Your task to perform on an android device: View the shopping cart on newegg.com. Image 0: 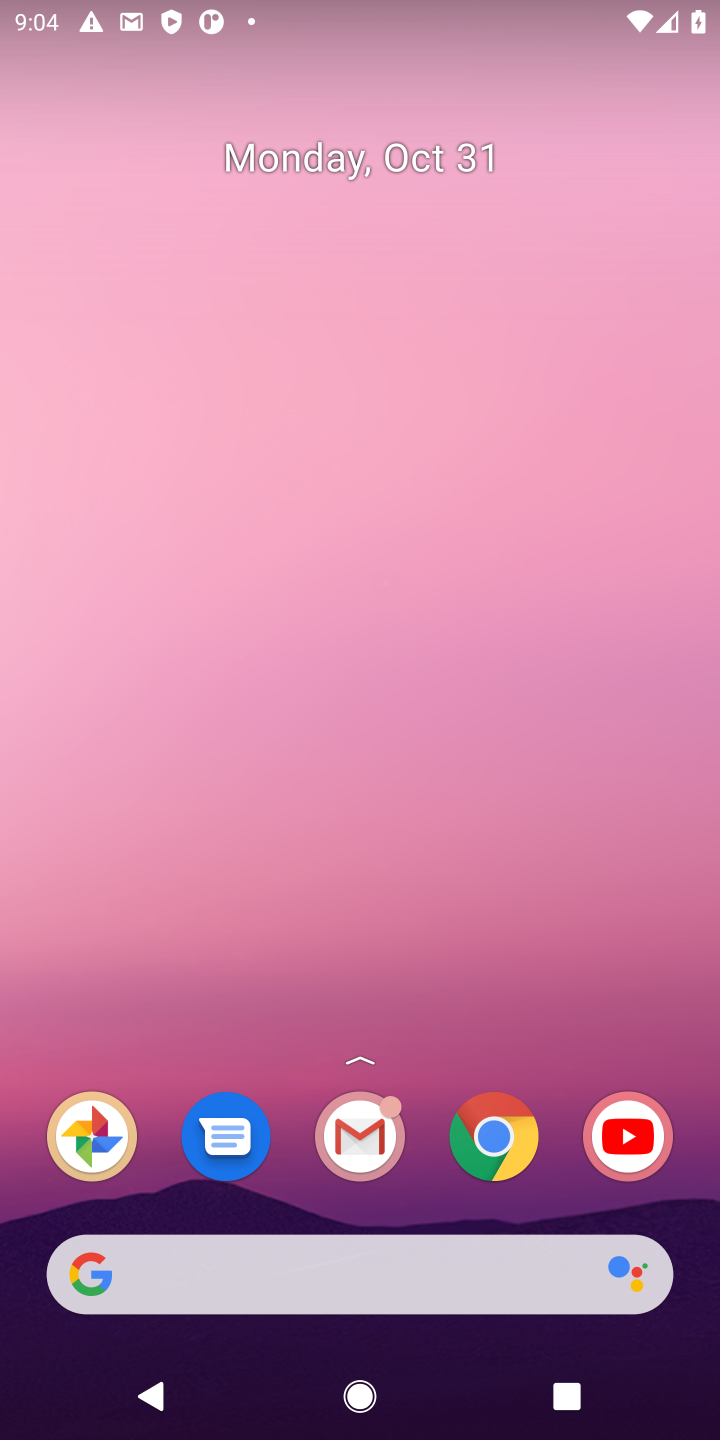
Step 0: click (508, 1137)
Your task to perform on an android device: View the shopping cart on newegg.com. Image 1: 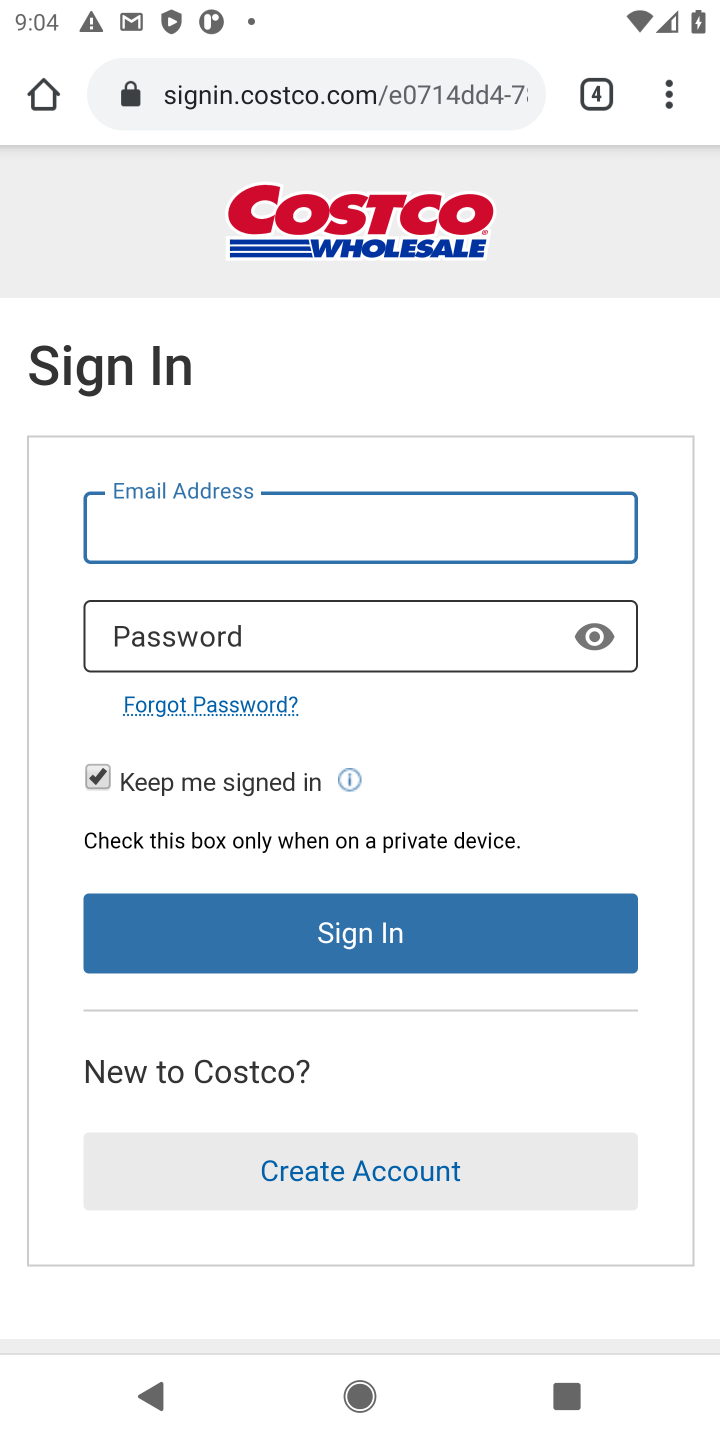
Step 1: click (369, 89)
Your task to perform on an android device: View the shopping cart on newegg.com. Image 2: 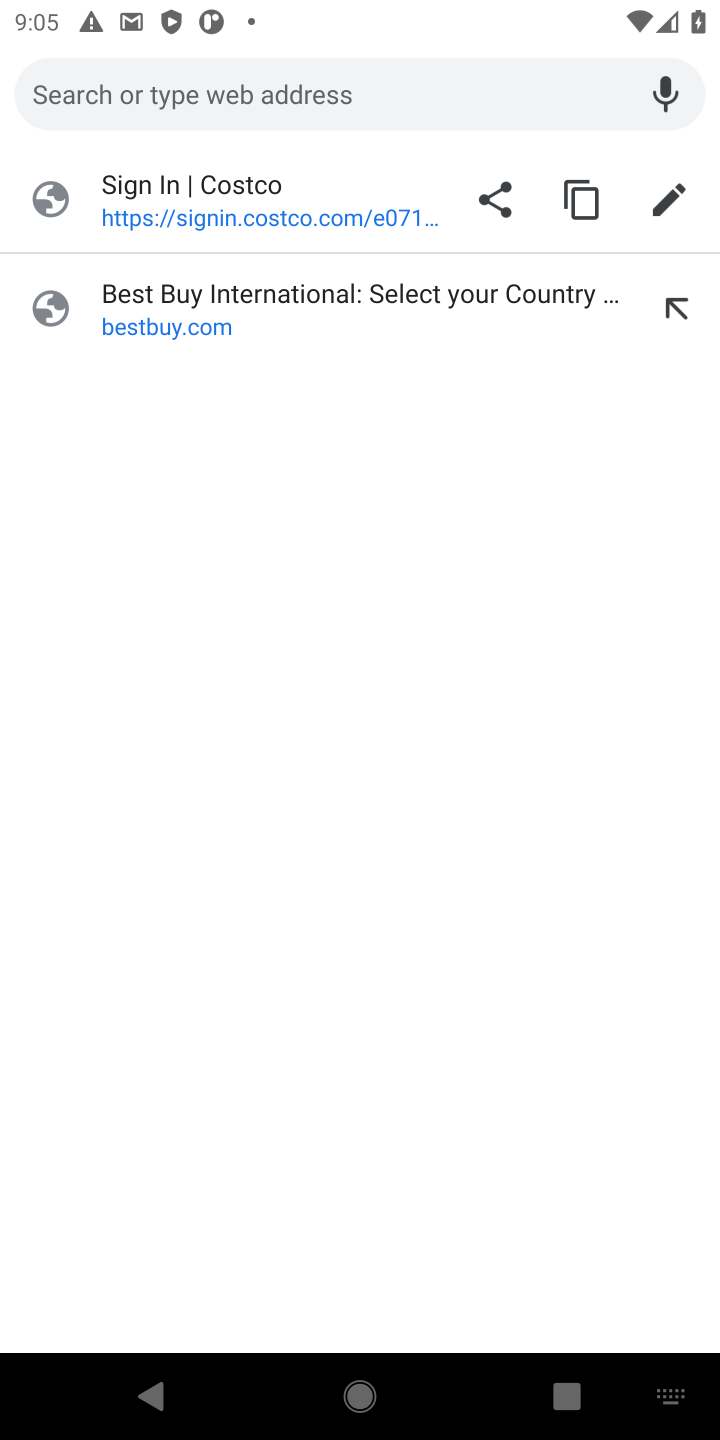
Step 2: type "newegg.com"
Your task to perform on an android device: View the shopping cart on newegg.com. Image 3: 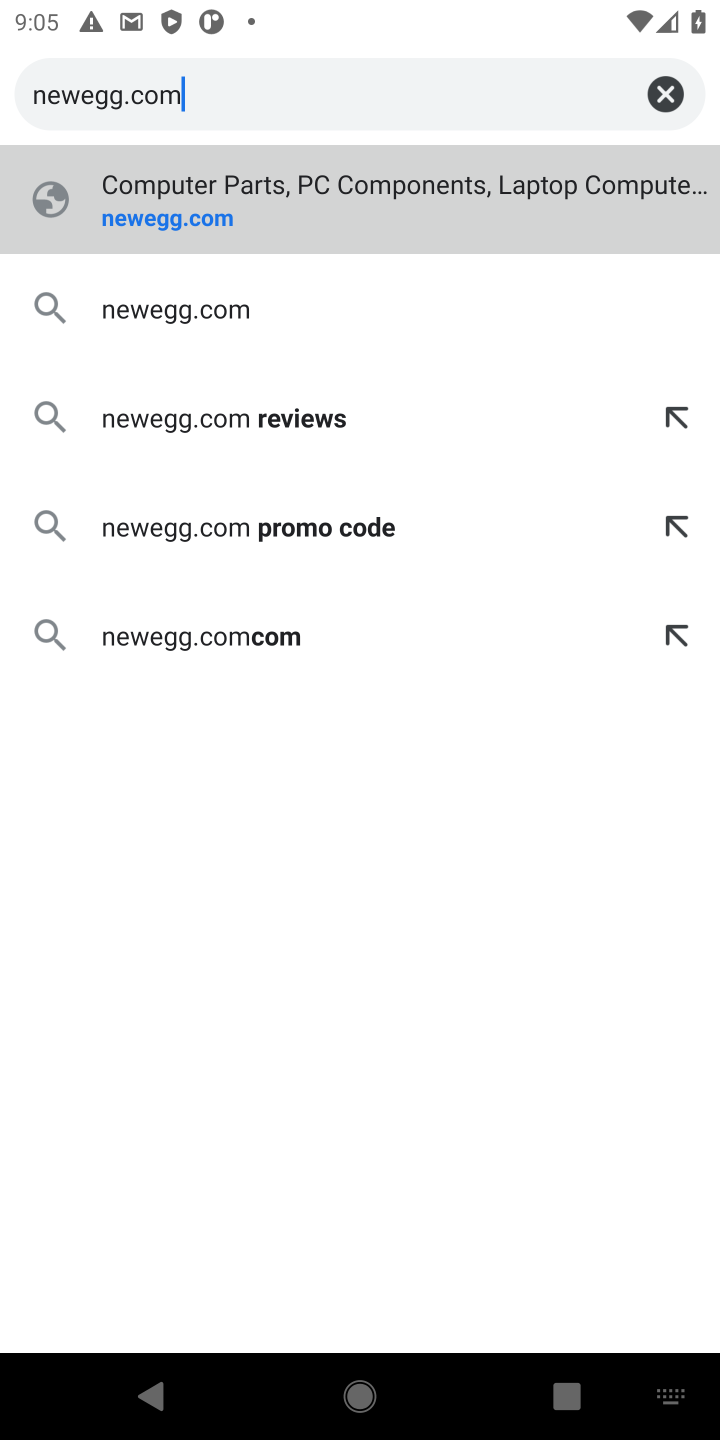
Step 3: click (233, 191)
Your task to perform on an android device: View the shopping cart on newegg.com. Image 4: 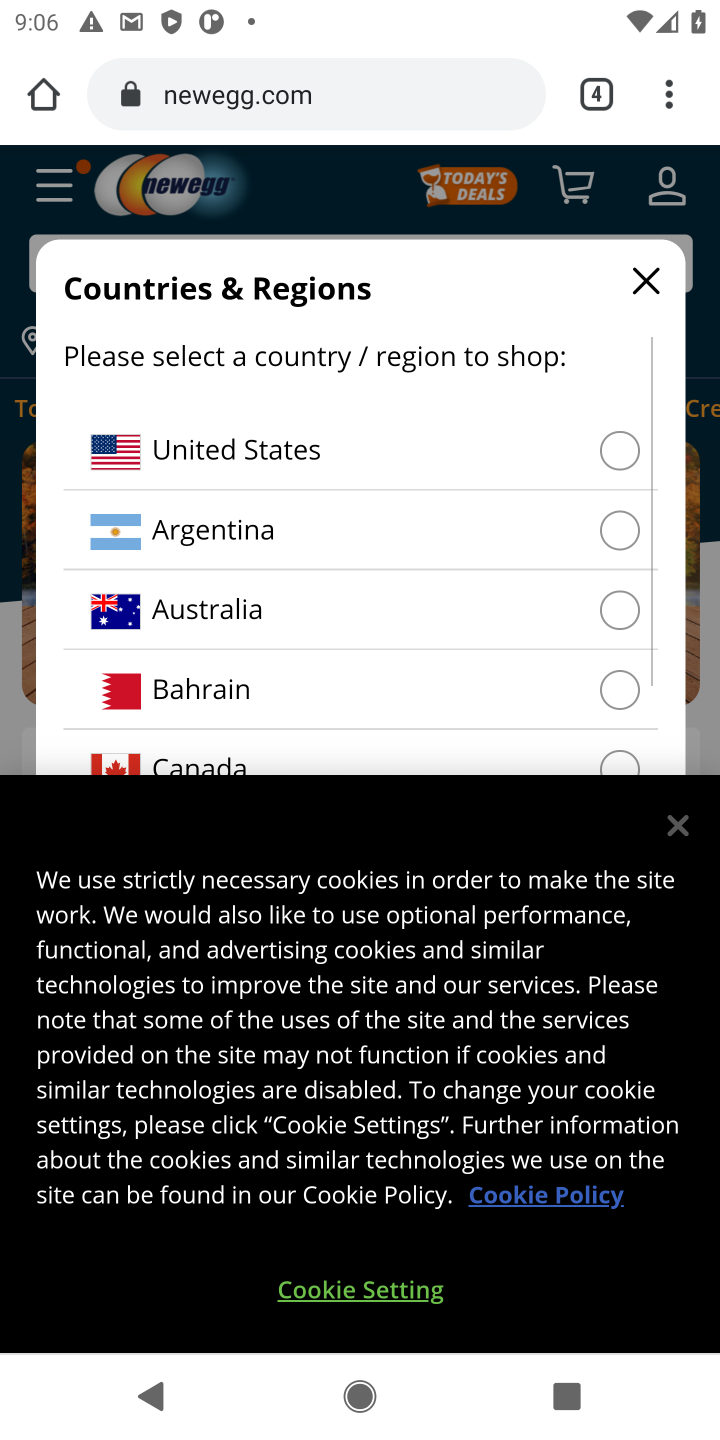
Step 4: click (634, 284)
Your task to perform on an android device: View the shopping cart on newegg.com. Image 5: 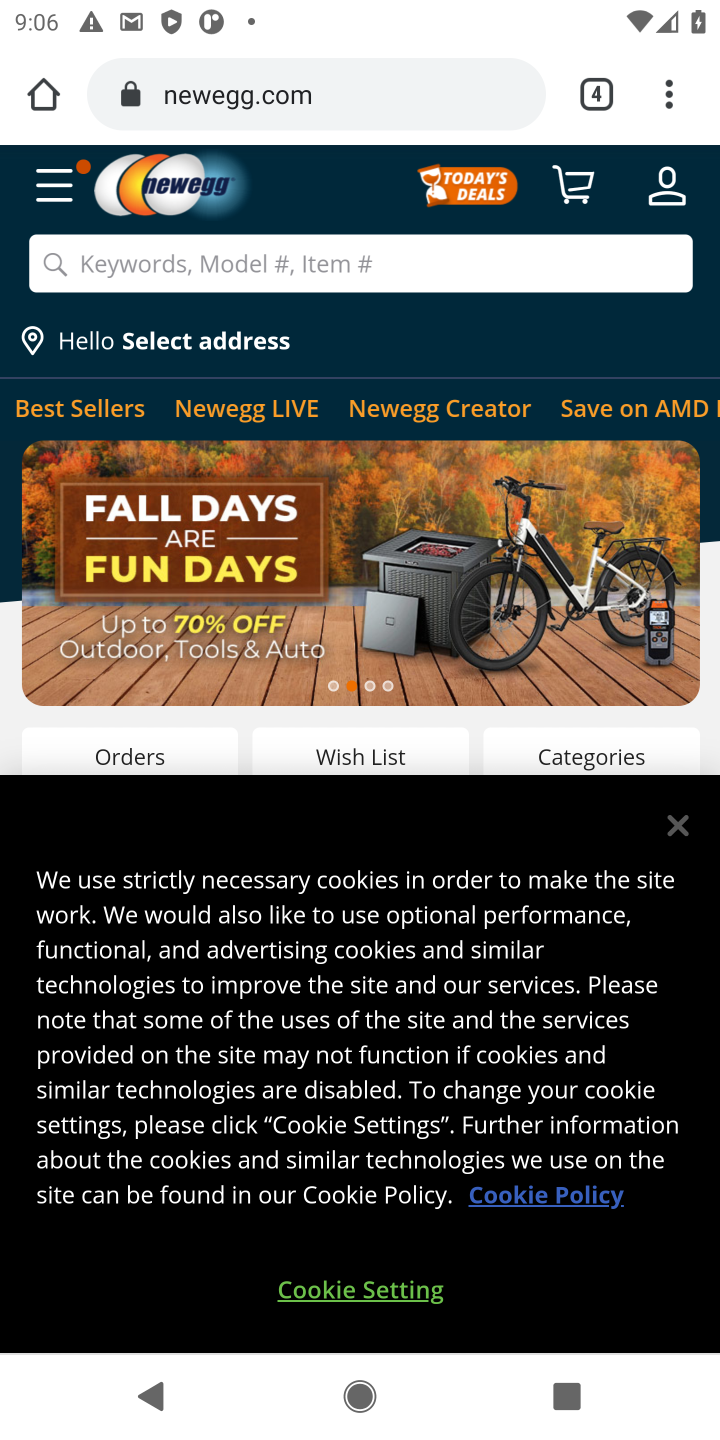
Step 5: click (678, 819)
Your task to perform on an android device: View the shopping cart on newegg.com. Image 6: 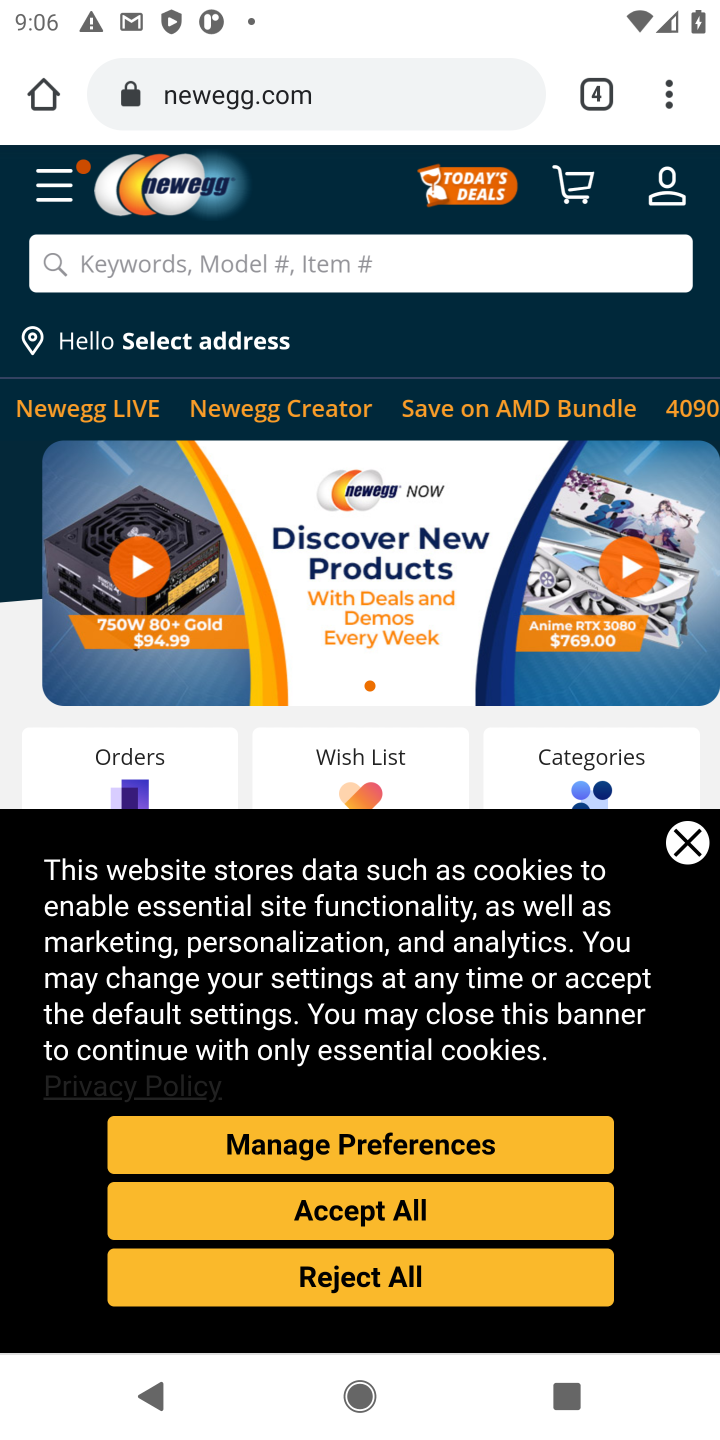
Step 6: click (665, 187)
Your task to perform on an android device: View the shopping cart on newegg.com. Image 7: 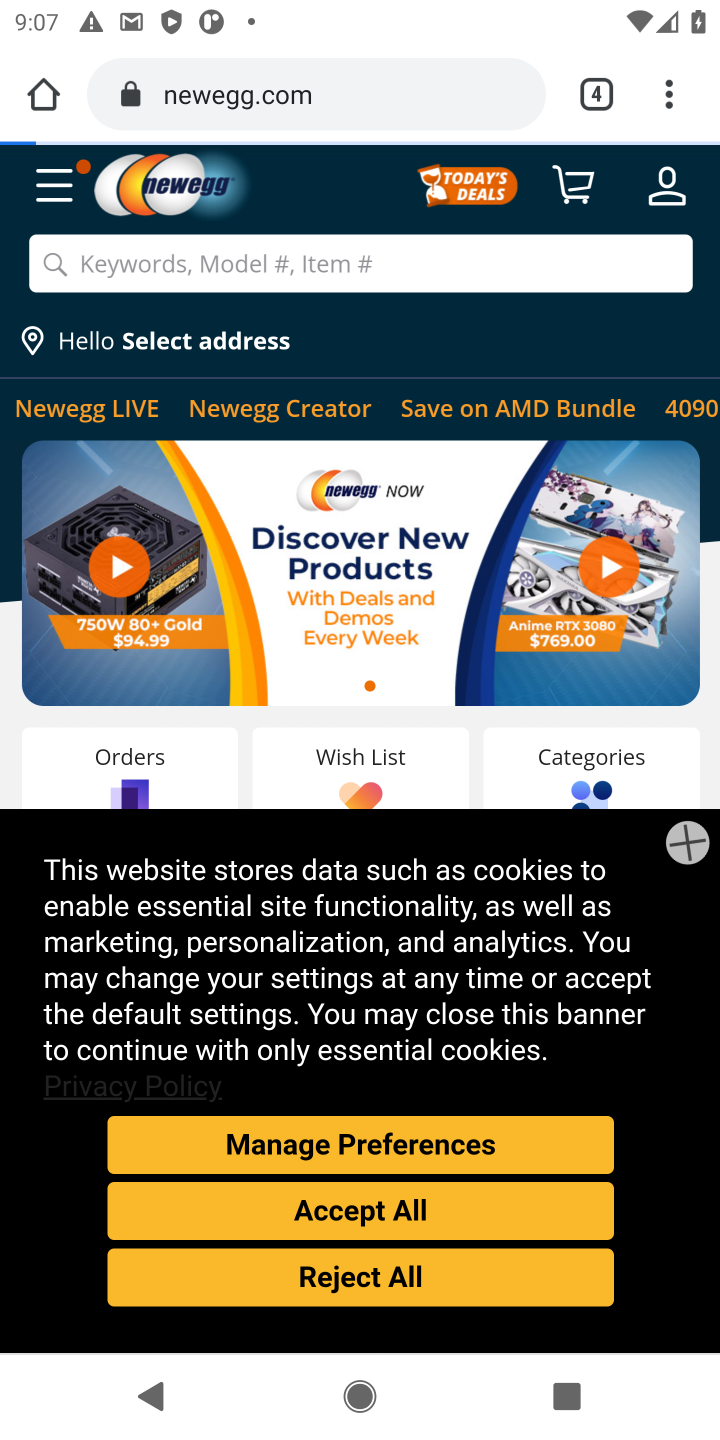
Step 7: task complete